Your task to perform on an android device: turn notification dots on Image 0: 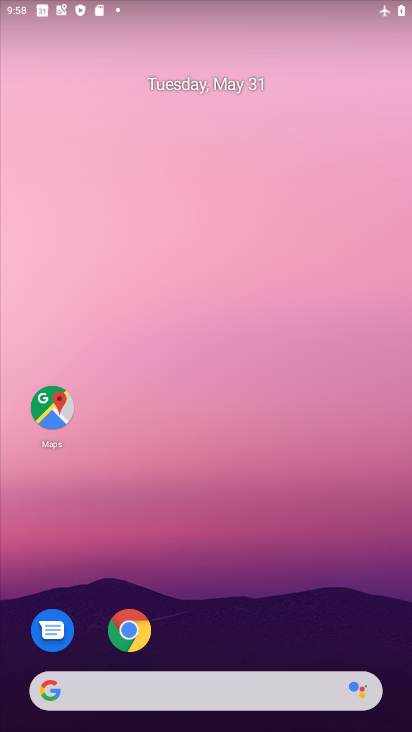
Step 0: drag from (259, 620) to (261, 254)
Your task to perform on an android device: turn notification dots on Image 1: 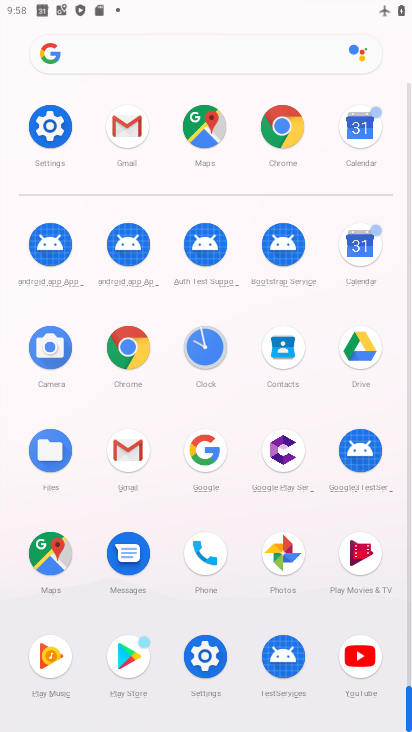
Step 1: click (54, 115)
Your task to perform on an android device: turn notification dots on Image 2: 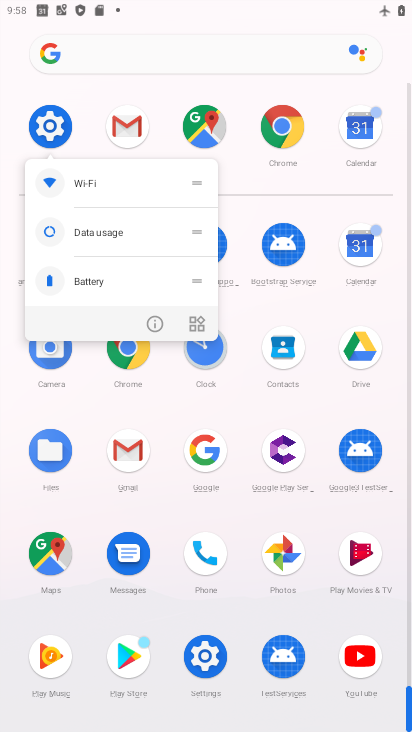
Step 2: click (53, 120)
Your task to perform on an android device: turn notification dots on Image 3: 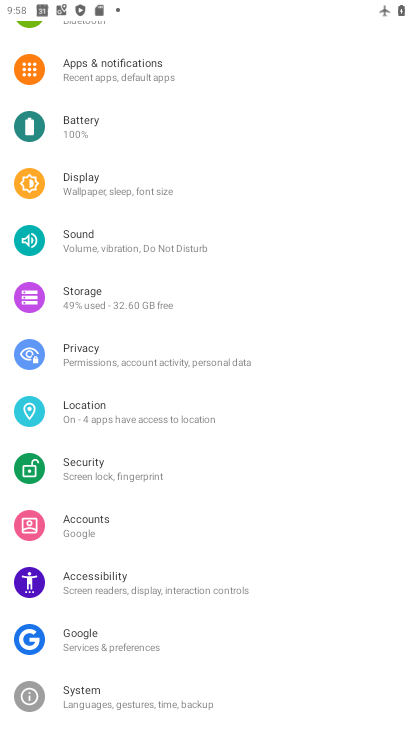
Step 3: drag from (138, 199) to (159, 572)
Your task to perform on an android device: turn notification dots on Image 4: 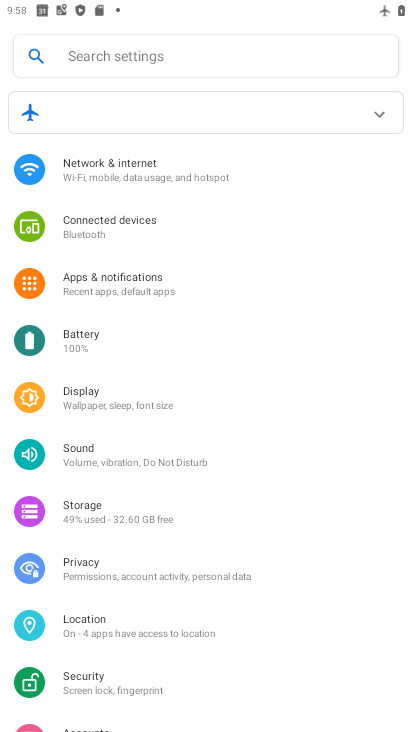
Step 4: click (129, 275)
Your task to perform on an android device: turn notification dots on Image 5: 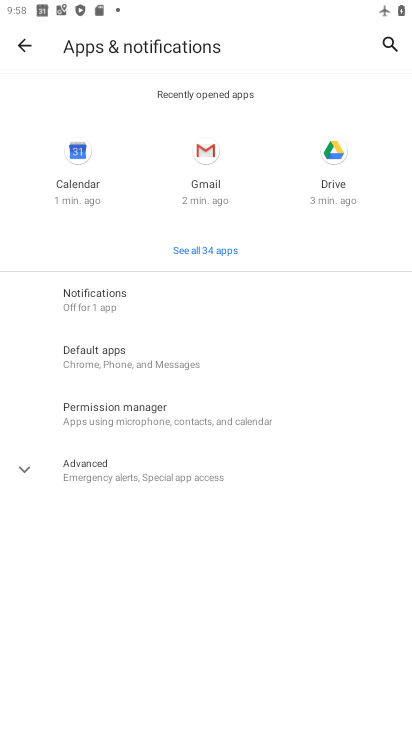
Step 5: click (124, 306)
Your task to perform on an android device: turn notification dots on Image 6: 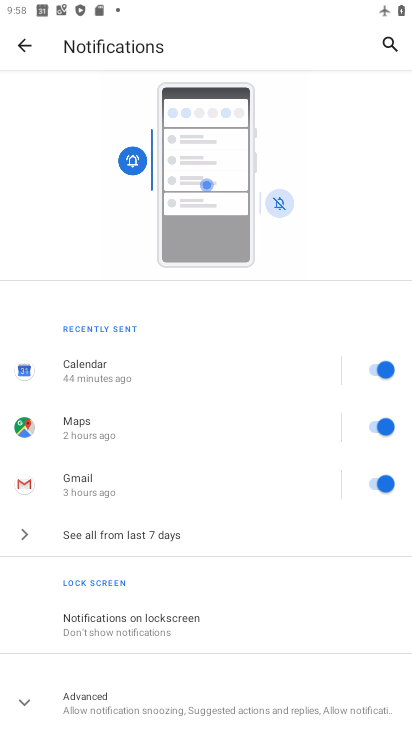
Step 6: press back button
Your task to perform on an android device: turn notification dots on Image 7: 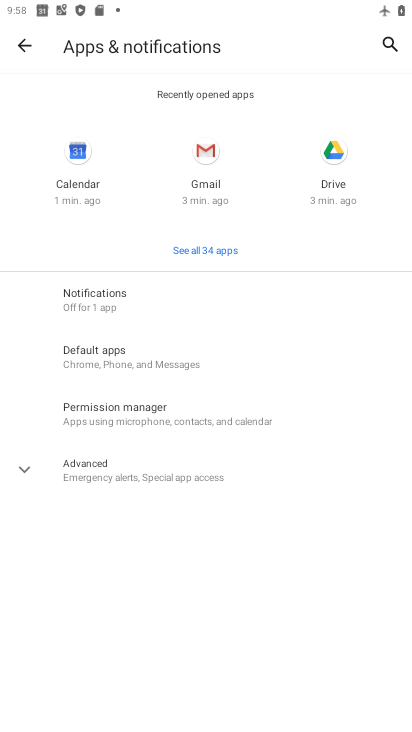
Step 7: press home button
Your task to perform on an android device: turn notification dots on Image 8: 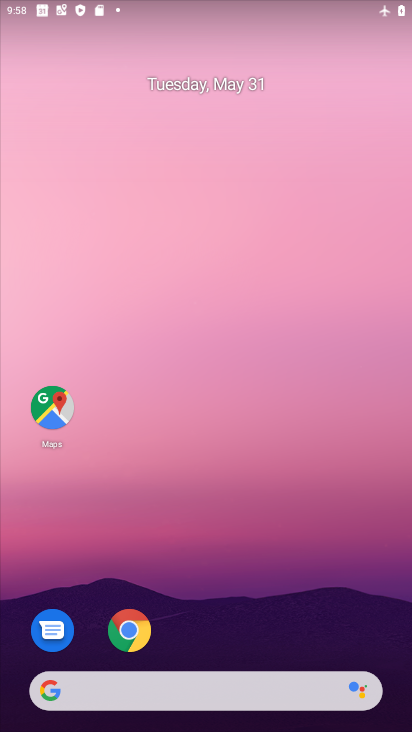
Step 8: drag from (212, 600) to (207, 126)
Your task to perform on an android device: turn notification dots on Image 9: 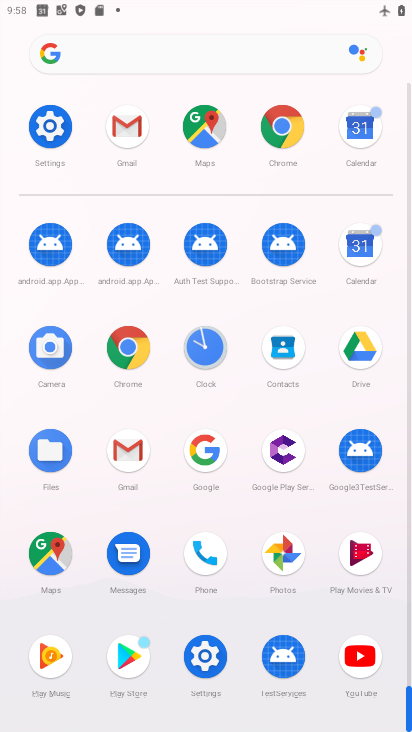
Step 9: click (47, 128)
Your task to perform on an android device: turn notification dots on Image 10: 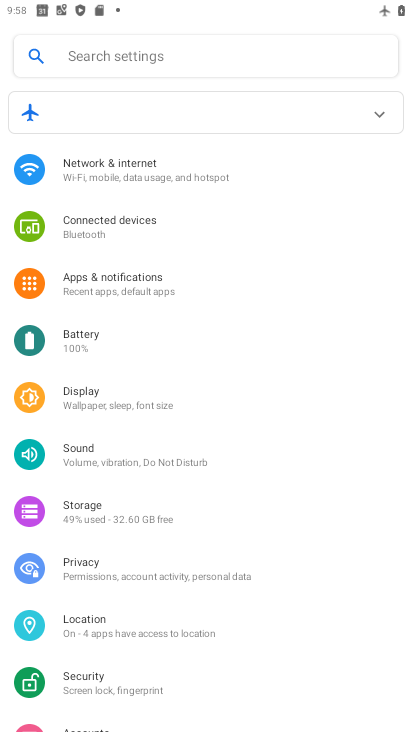
Step 10: click (191, 44)
Your task to perform on an android device: turn notification dots on Image 11: 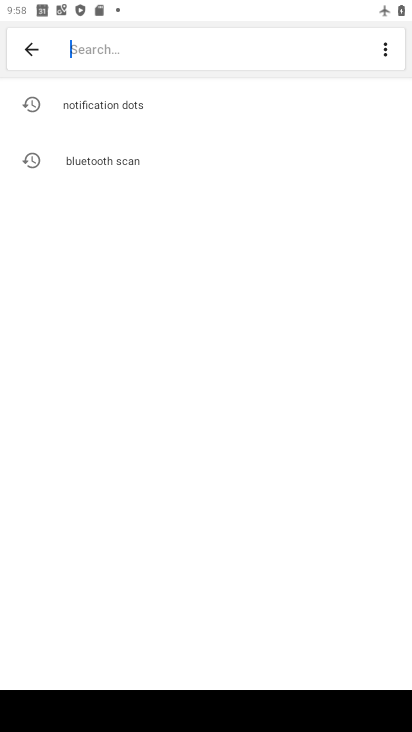
Step 11: click (159, 105)
Your task to perform on an android device: turn notification dots on Image 12: 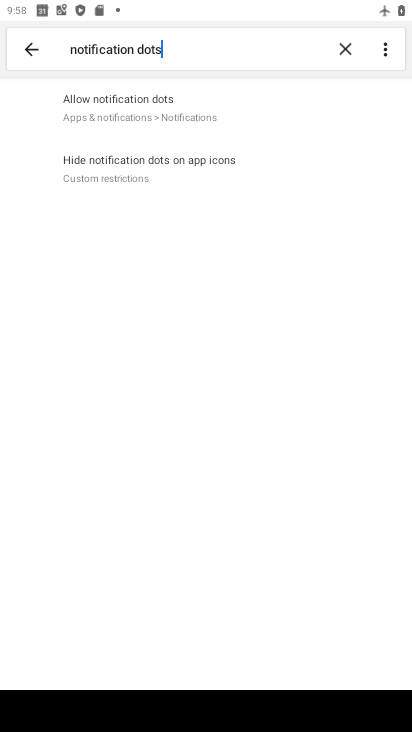
Step 12: click (205, 103)
Your task to perform on an android device: turn notification dots on Image 13: 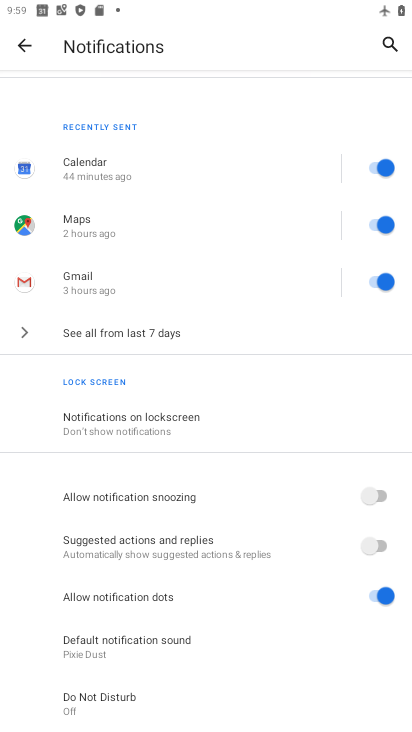
Step 13: task complete